Your task to perform on an android device: Go to ESPN.com Image 0: 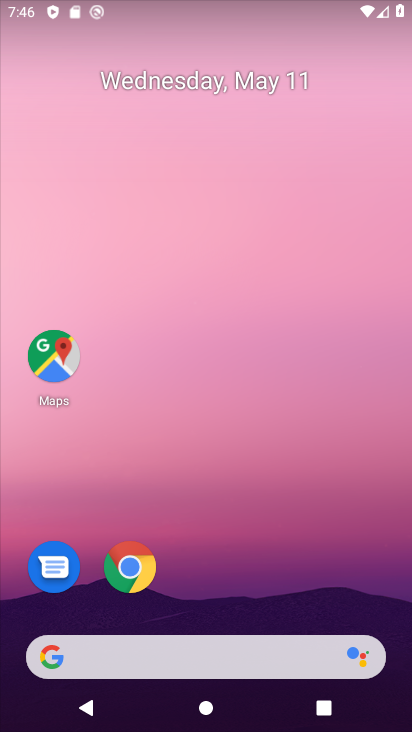
Step 0: click (145, 552)
Your task to perform on an android device: Go to ESPN.com Image 1: 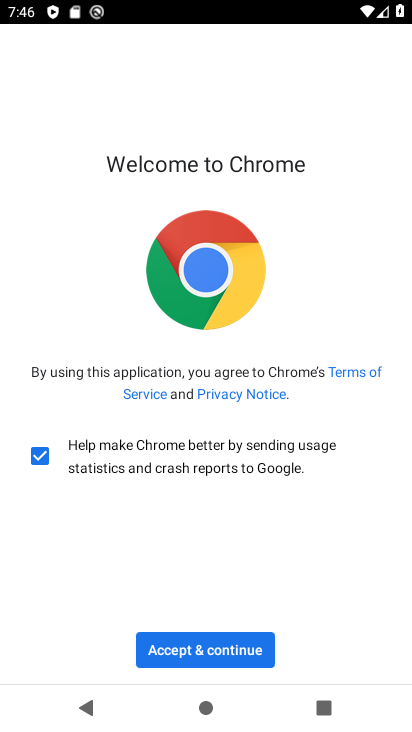
Step 1: click (209, 647)
Your task to perform on an android device: Go to ESPN.com Image 2: 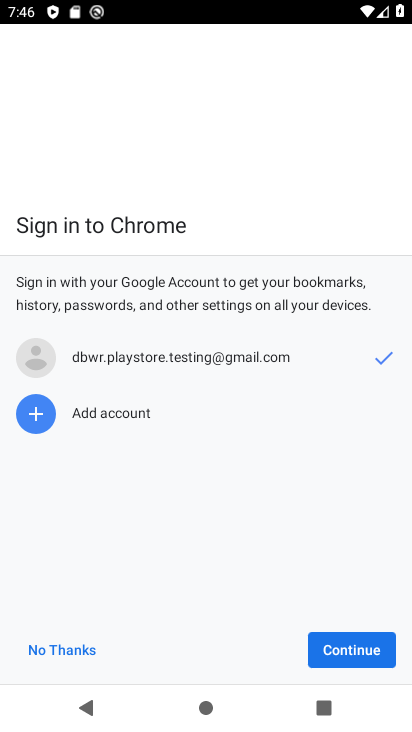
Step 2: click (323, 658)
Your task to perform on an android device: Go to ESPN.com Image 3: 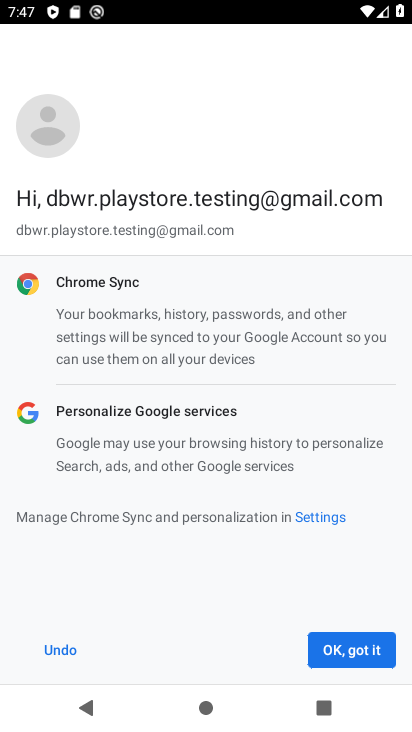
Step 3: click (318, 663)
Your task to perform on an android device: Go to ESPN.com Image 4: 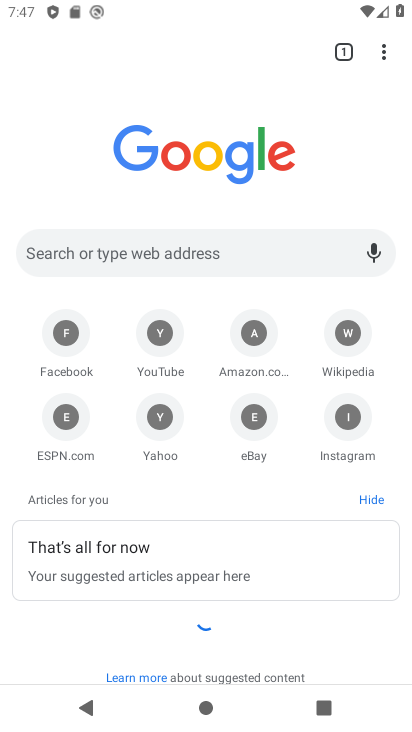
Step 4: click (212, 252)
Your task to perform on an android device: Go to ESPN.com Image 5: 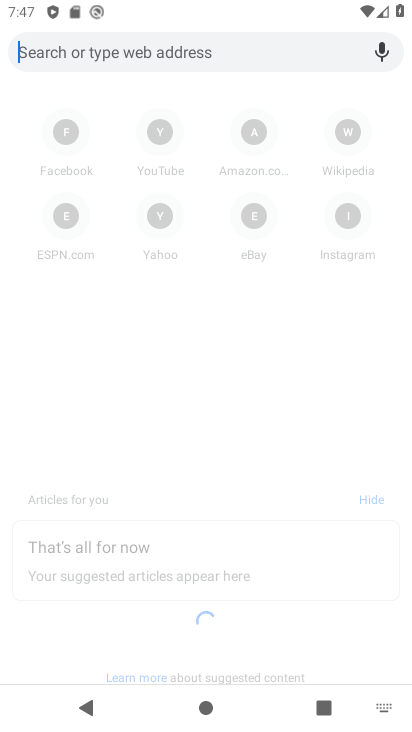
Step 5: click (42, 250)
Your task to perform on an android device: Go to ESPN.com Image 6: 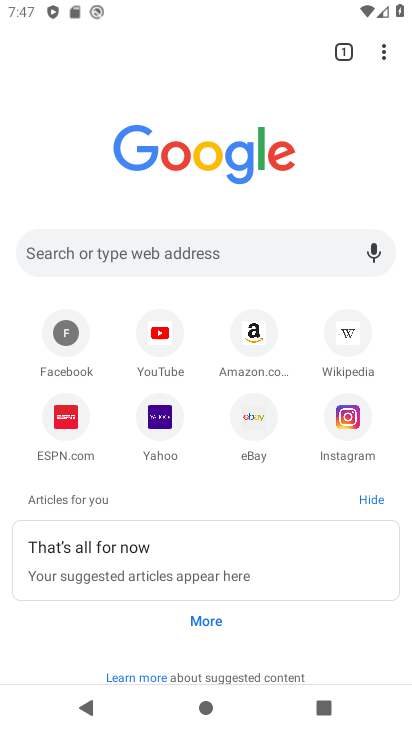
Step 6: click (64, 422)
Your task to perform on an android device: Go to ESPN.com Image 7: 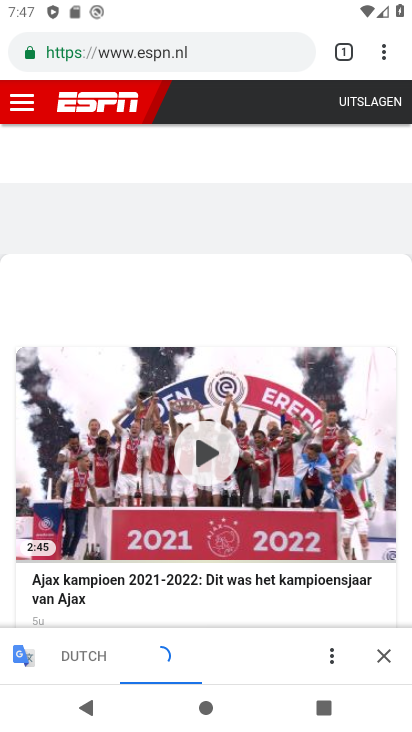
Step 7: task complete